Your task to perform on an android device: Open calendar and show me the fourth week of next month Image 0: 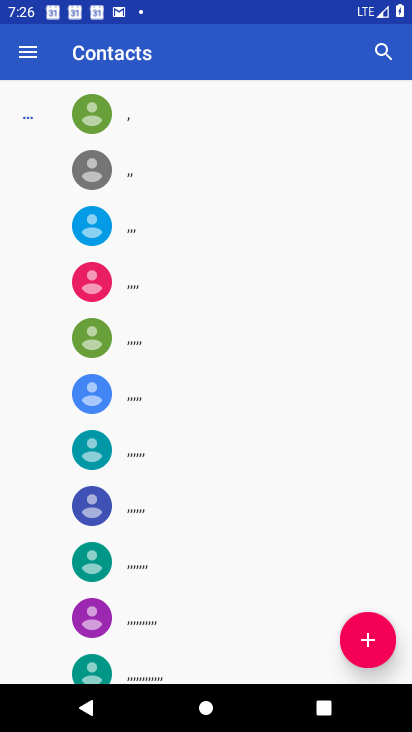
Step 0: press home button
Your task to perform on an android device: Open calendar and show me the fourth week of next month Image 1: 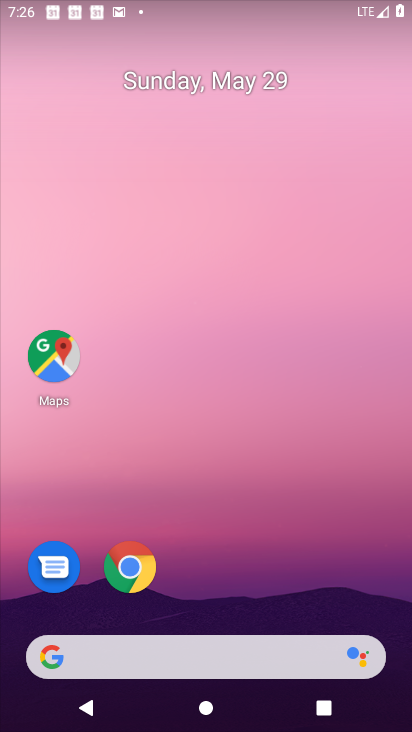
Step 1: drag from (273, 615) to (258, 251)
Your task to perform on an android device: Open calendar and show me the fourth week of next month Image 2: 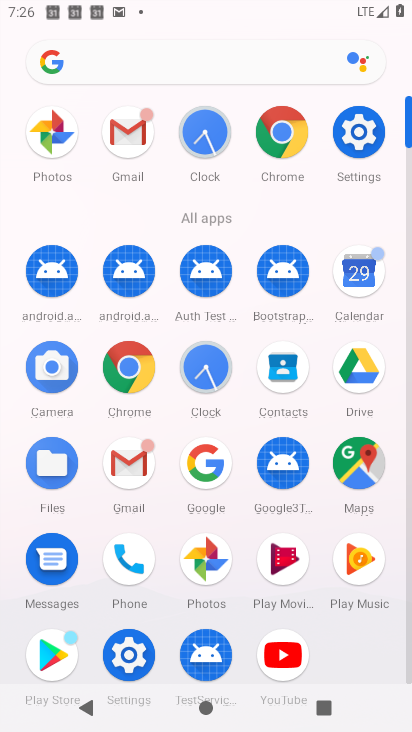
Step 2: click (353, 267)
Your task to perform on an android device: Open calendar and show me the fourth week of next month Image 3: 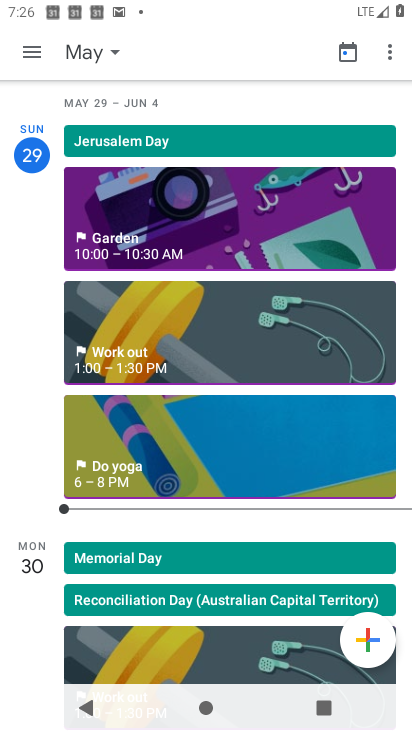
Step 3: click (30, 40)
Your task to perform on an android device: Open calendar and show me the fourth week of next month Image 4: 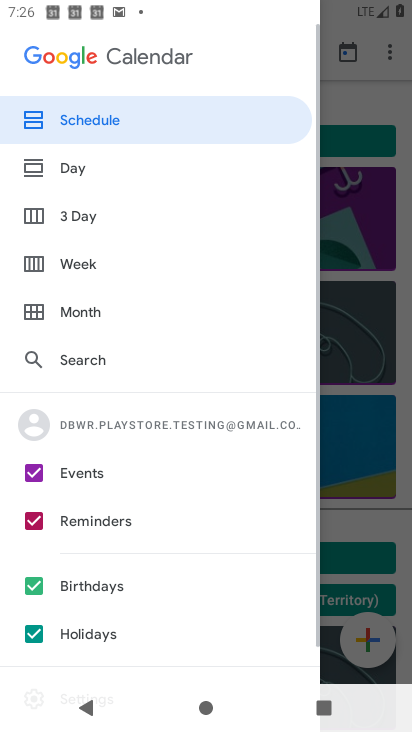
Step 4: click (102, 305)
Your task to perform on an android device: Open calendar and show me the fourth week of next month Image 5: 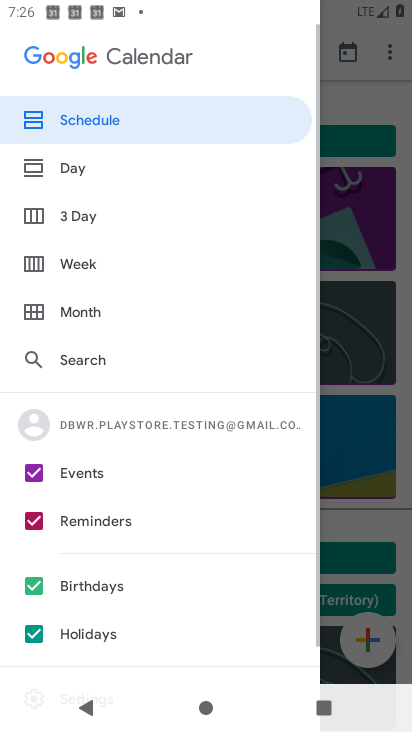
Step 5: click (81, 310)
Your task to perform on an android device: Open calendar and show me the fourth week of next month Image 6: 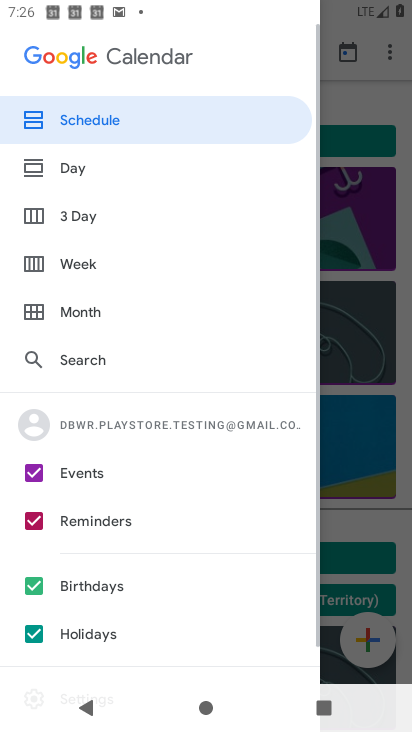
Step 6: click (81, 309)
Your task to perform on an android device: Open calendar and show me the fourth week of next month Image 7: 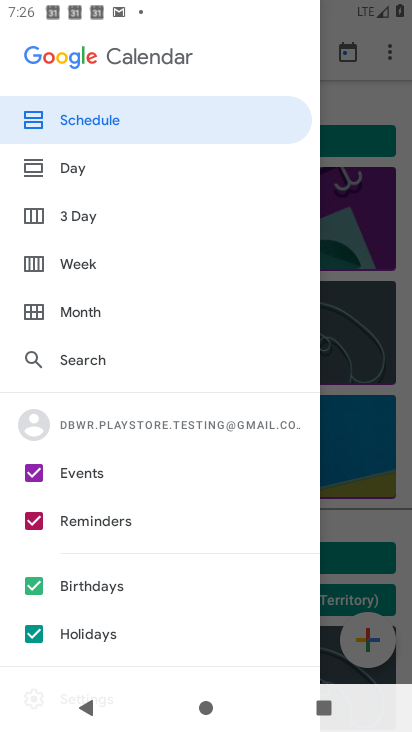
Step 7: click (75, 310)
Your task to perform on an android device: Open calendar and show me the fourth week of next month Image 8: 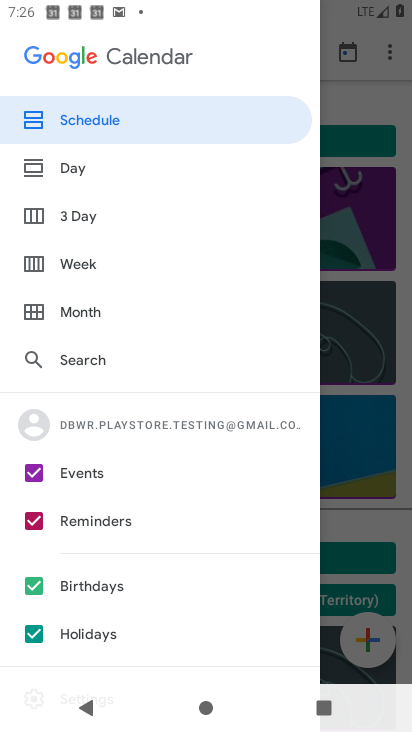
Step 8: click (75, 310)
Your task to perform on an android device: Open calendar and show me the fourth week of next month Image 9: 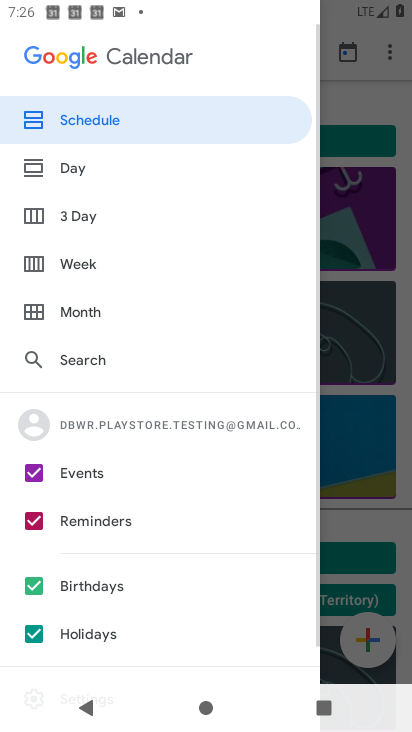
Step 9: click (76, 307)
Your task to perform on an android device: Open calendar and show me the fourth week of next month Image 10: 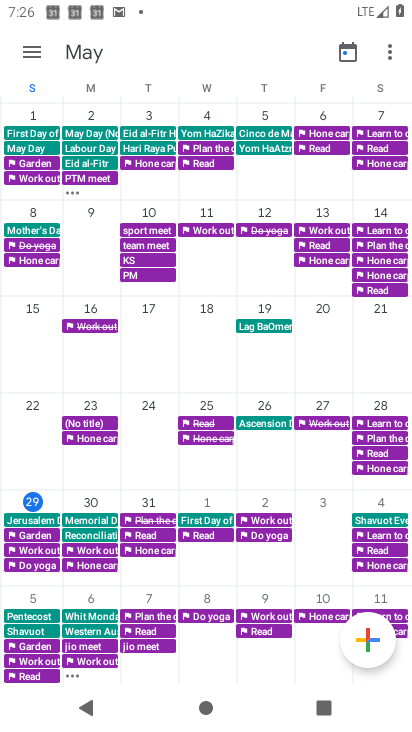
Step 10: task complete